Your task to perform on an android device: turn off smart reply in the gmail app Image 0: 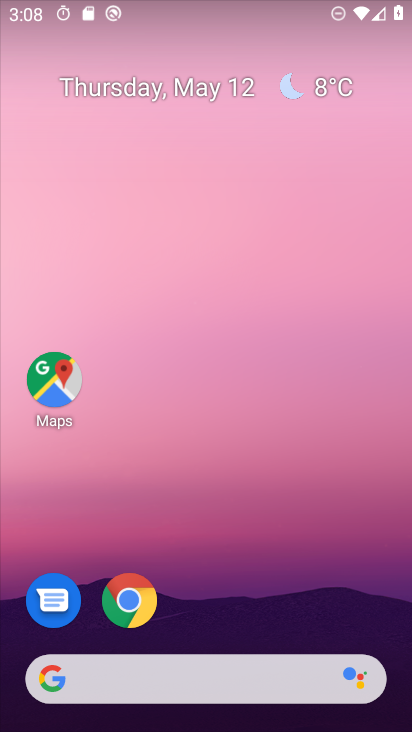
Step 0: drag from (205, 726) to (200, 165)
Your task to perform on an android device: turn off smart reply in the gmail app Image 1: 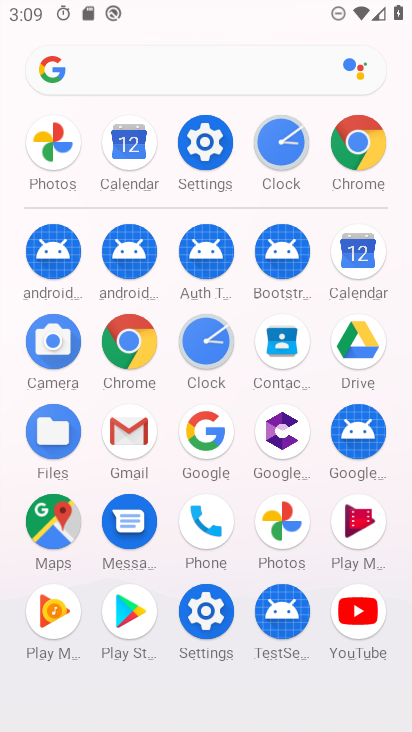
Step 1: click (130, 431)
Your task to perform on an android device: turn off smart reply in the gmail app Image 2: 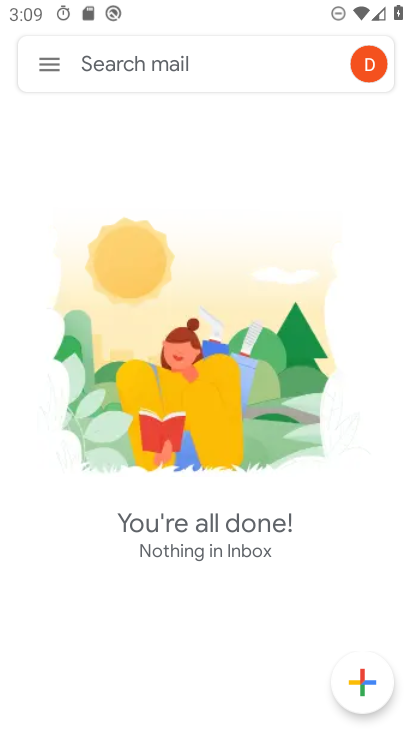
Step 2: click (42, 63)
Your task to perform on an android device: turn off smart reply in the gmail app Image 3: 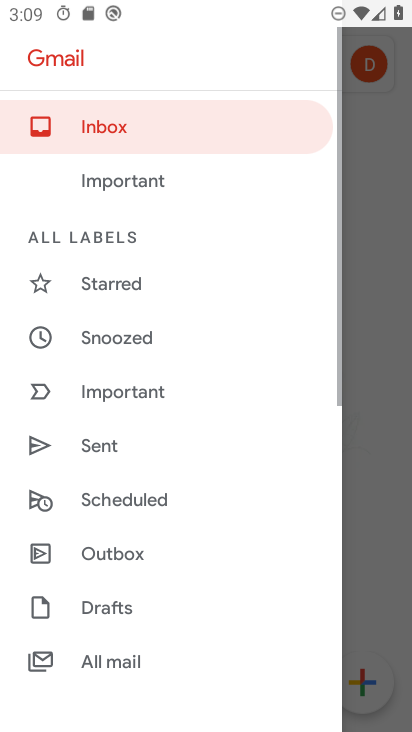
Step 3: drag from (120, 639) to (111, 231)
Your task to perform on an android device: turn off smart reply in the gmail app Image 4: 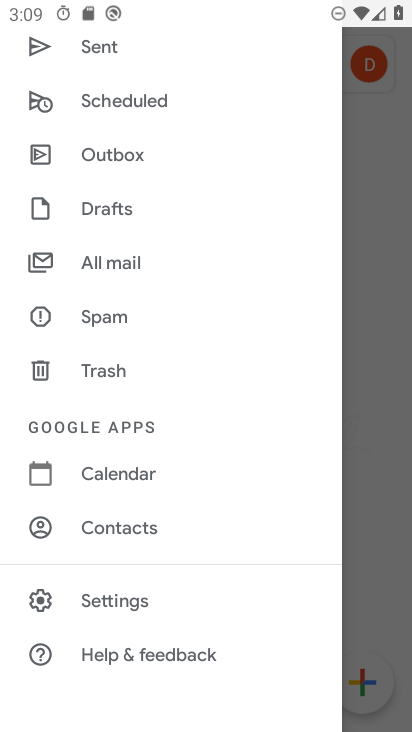
Step 4: click (106, 597)
Your task to perform on an android device: turn off smart reply in the gmail app Image 5: 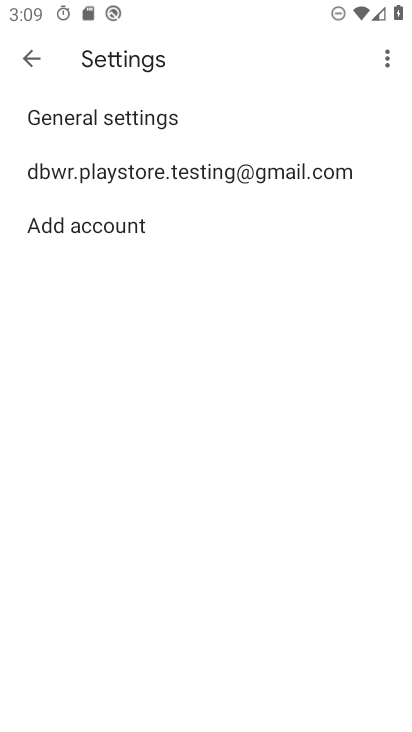
Step 5: click (186, 167)
Your task to perform on an android device: turn off smart reply in the gmail app Image 6: 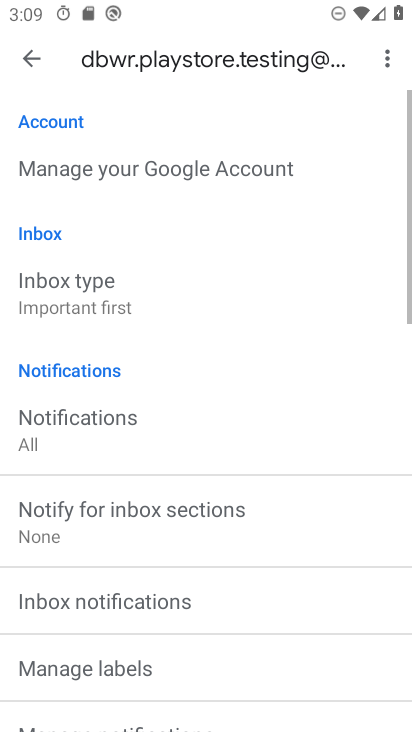
Step 6: drag from (99, 607) to (87, 213)
Your task to perform on an android device: turn off smart reply in the gmail app Image 7: 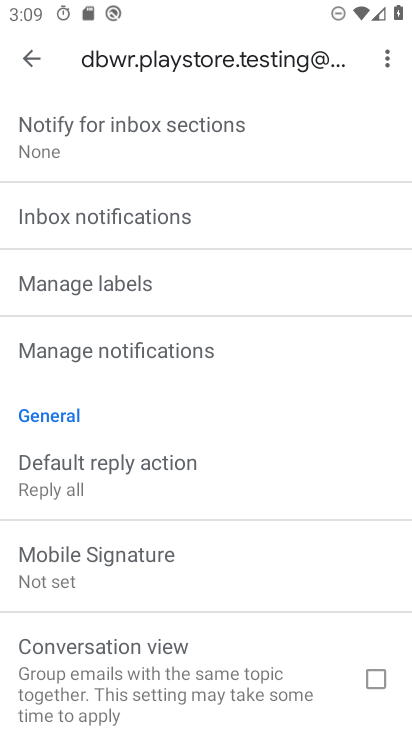
Step 7: drag from (125, 652) to (124, 231)
Your task to perform on an android device: turn off smart reply in the gmail app Image 8: 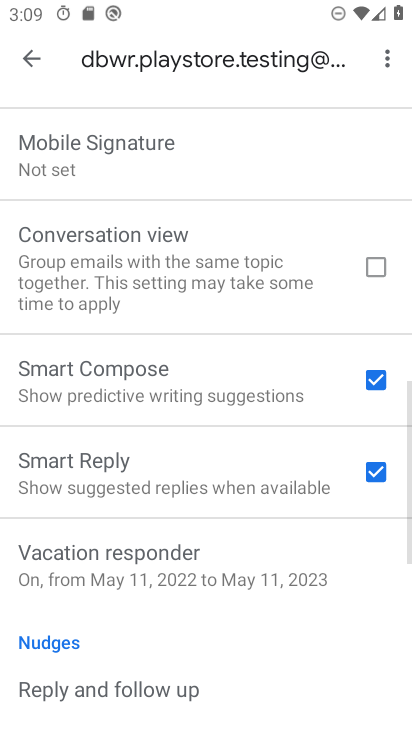
Step 8: click (369, 467)
Your task to perform on an android device: turn off smart reply in the gmail app Image 9: 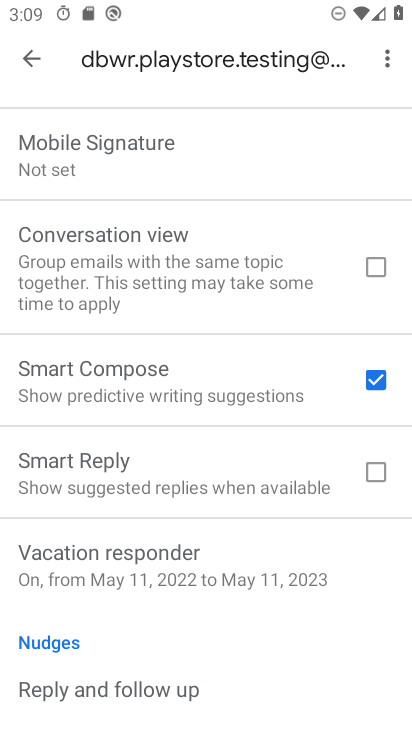
Step 9: task complete